Your task to perform on an android device: Go to calendar. Show me events next week Image 0: 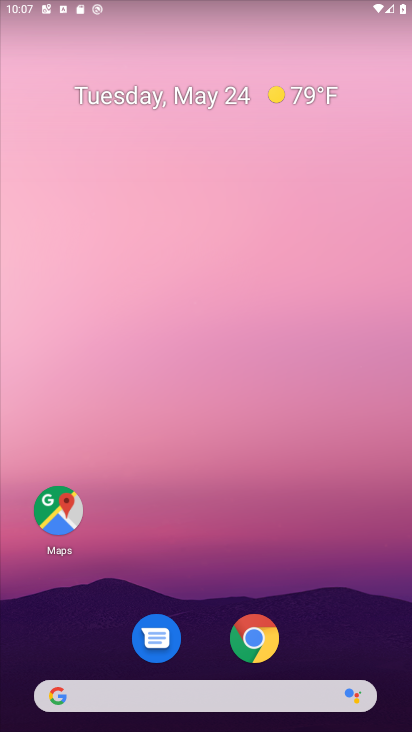
Step 0: drag from (201, 722) to (180, 72)
Your task to perform on an android device: Go to calendar. Show me events next week Image 1: 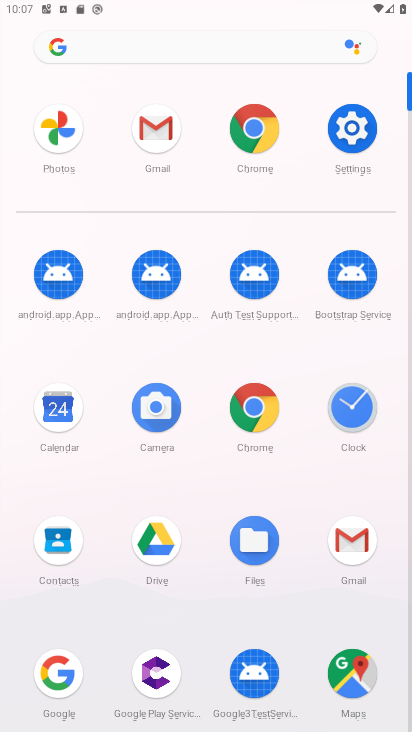
Step 1: click (48, 406)
Your task to perform on an android device: Go to calendar. Show me events next week Image 2: 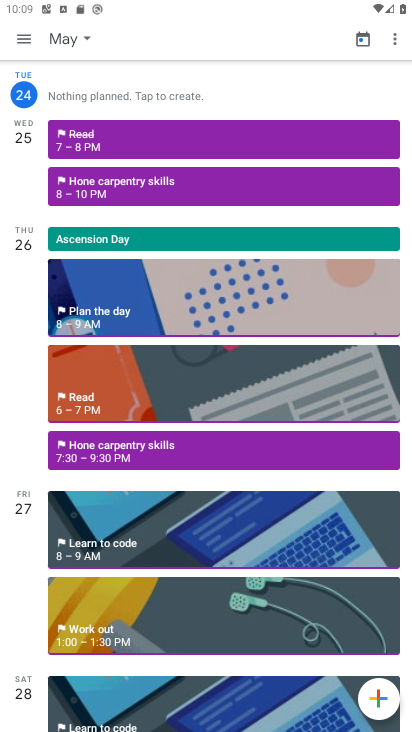
Step 2: click (48, 43)
Your task to perform on an android device: Go to calendar. Show me events next week Image 3: 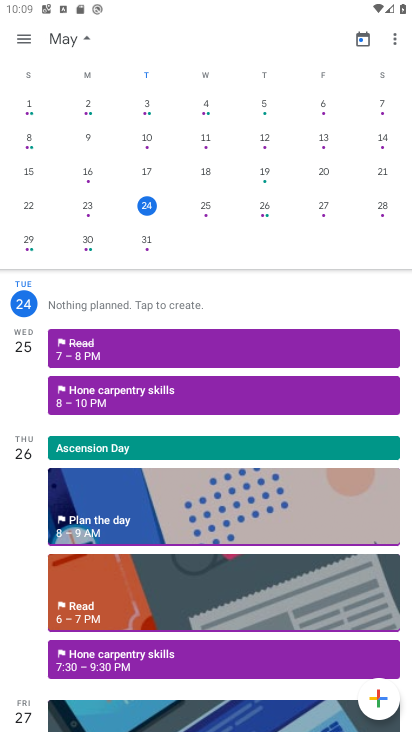
Step 3: click (21, 248)
Your task to perform on an android device: Go to calendar. Show me events next week Image 4: 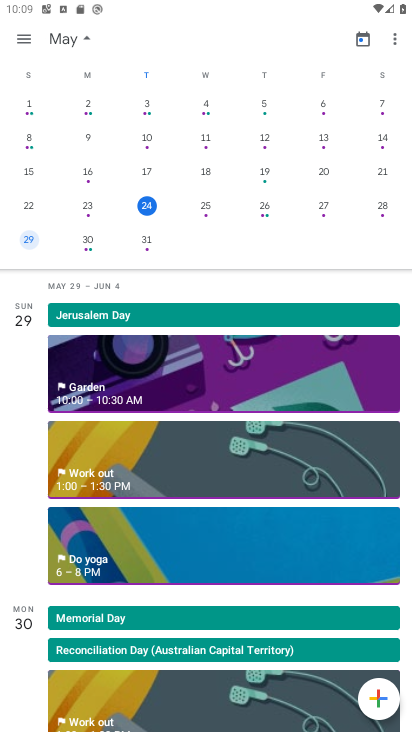
Step 4: task complete